Your task to perform on an android device: find snoozed emails in the gmail app Image 0: 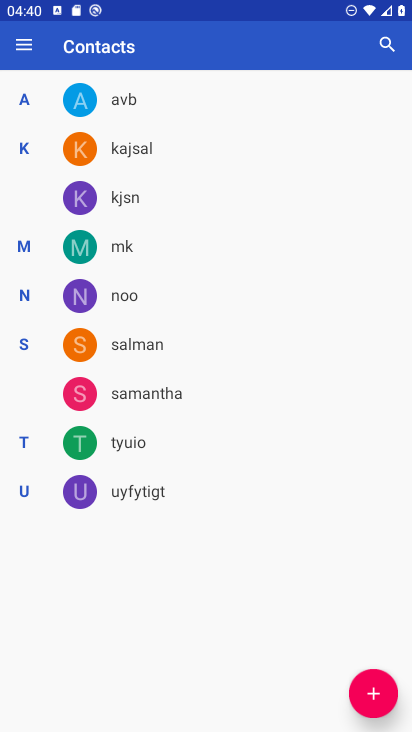
Step 0: press home button
Your task to perform on an android device: find snoozed emails in the gmail app Image 1: 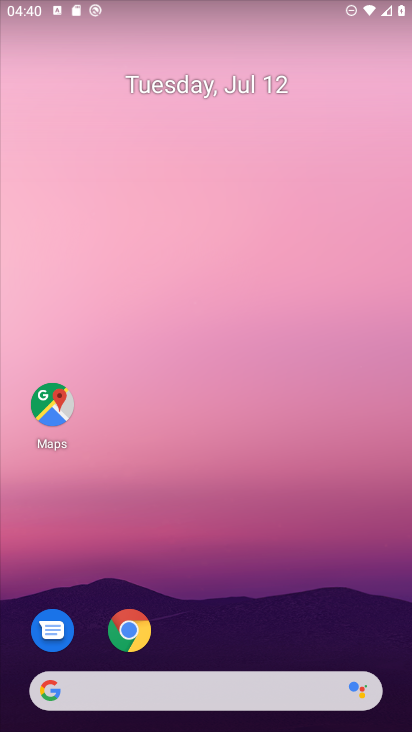
Step 1: drag from (339, 634) to (304, 150)
Your task to perform on an android device: find snoozed emails in the gmail app Image 2: 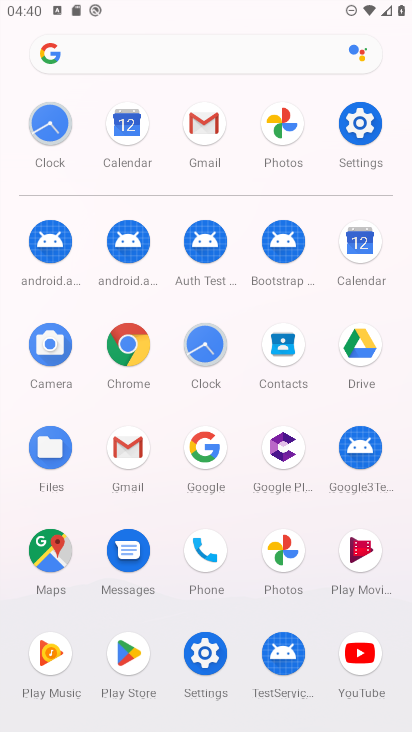
Step 2: click (125, 447)
Your task to perform on an android device: find snoozed emails in the gmail app Image 3: 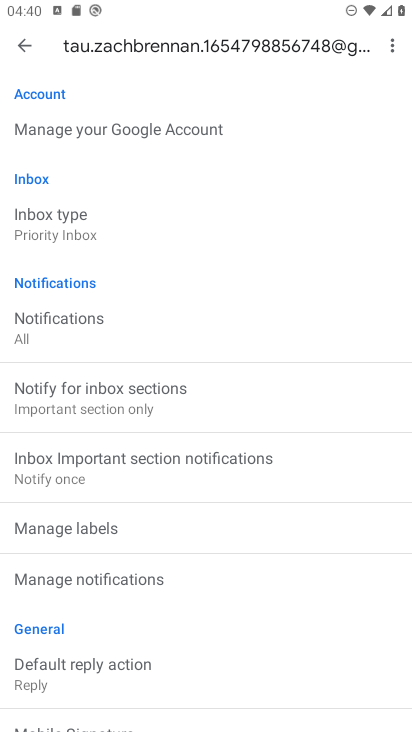
Step 3: press back button
Your task to perform on an android device: find snoozed emails in the gmail app Image 4: 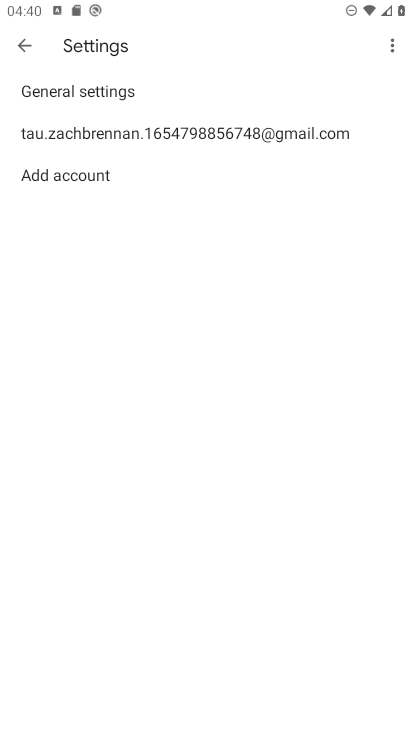
Step 4: press back button
Your task to perform on an android device: find snoozed emails in the gmail app Image 5: 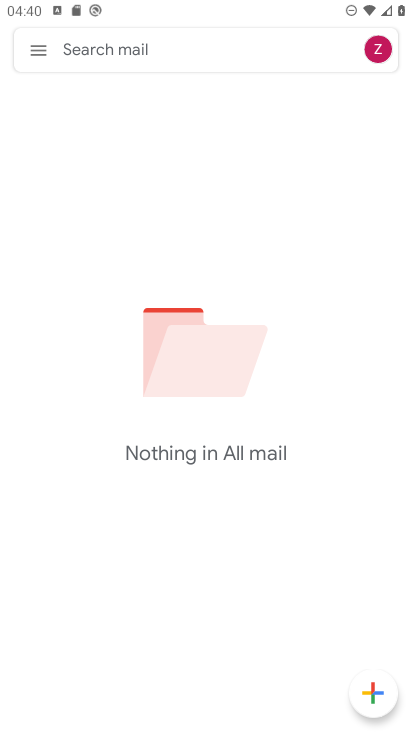
Step 5: click (31, 52)
Your task to perform on an android device: find snoozed emails in the gmail app Image 6: 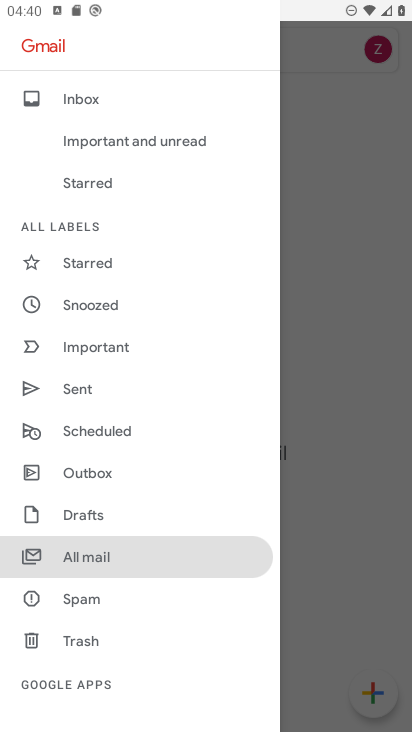
Step 6: click (95, 302)
Your task to perform on an android device: find snoozed emails in the gmail app Image 7: 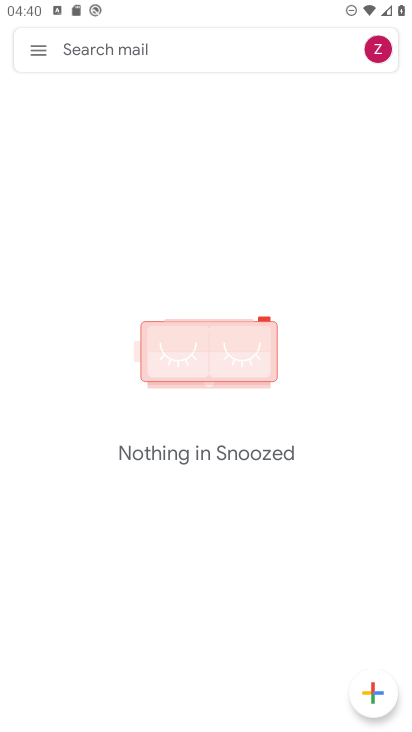
Step 7: task complete